Your task to perform on an android device: turn off data saver in the chrome app Image 0: 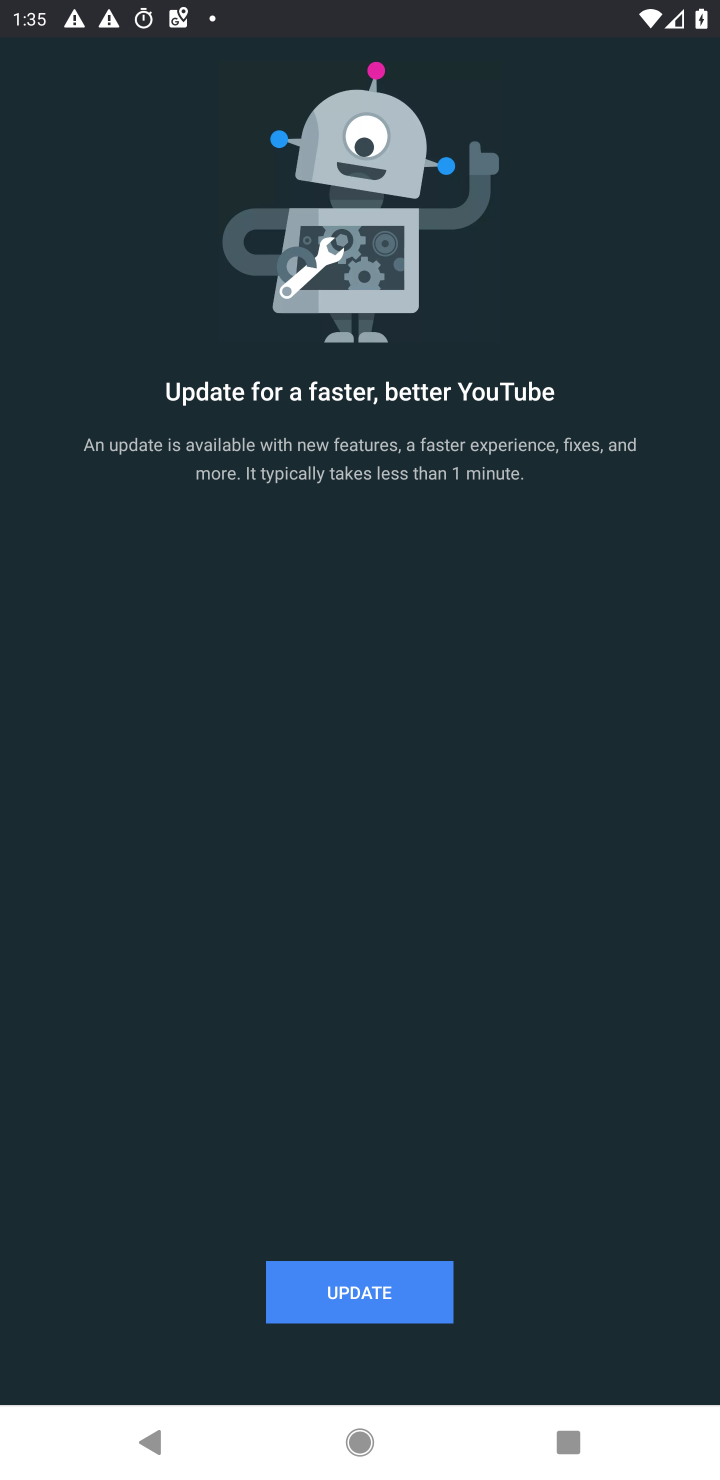
Step 0: press home button
Your task to perform on an android device: turn off data saver in the chrome app Image 1: 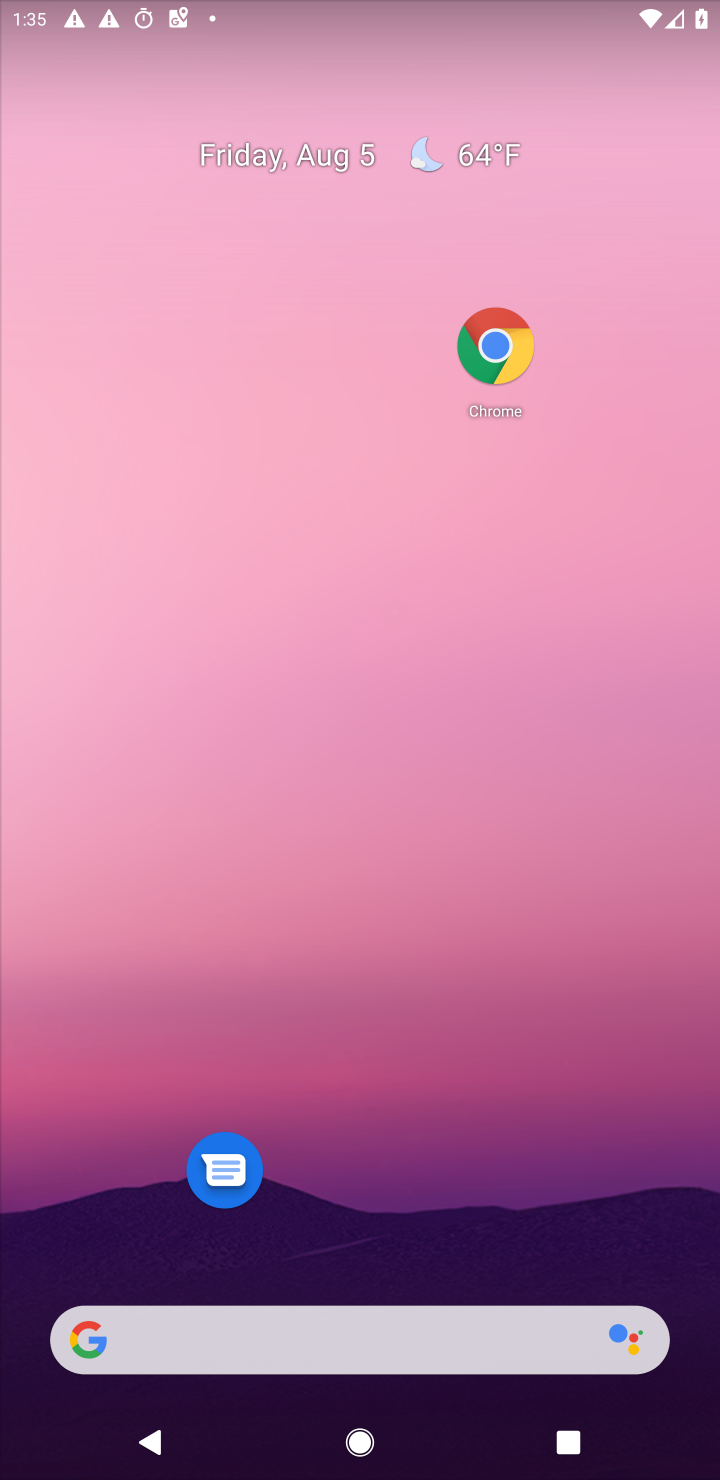
Step 1: drag from (320, 1149) to (346, 162)
Your task to perform on an android device: turn off data saver in the chrome app Image 2: 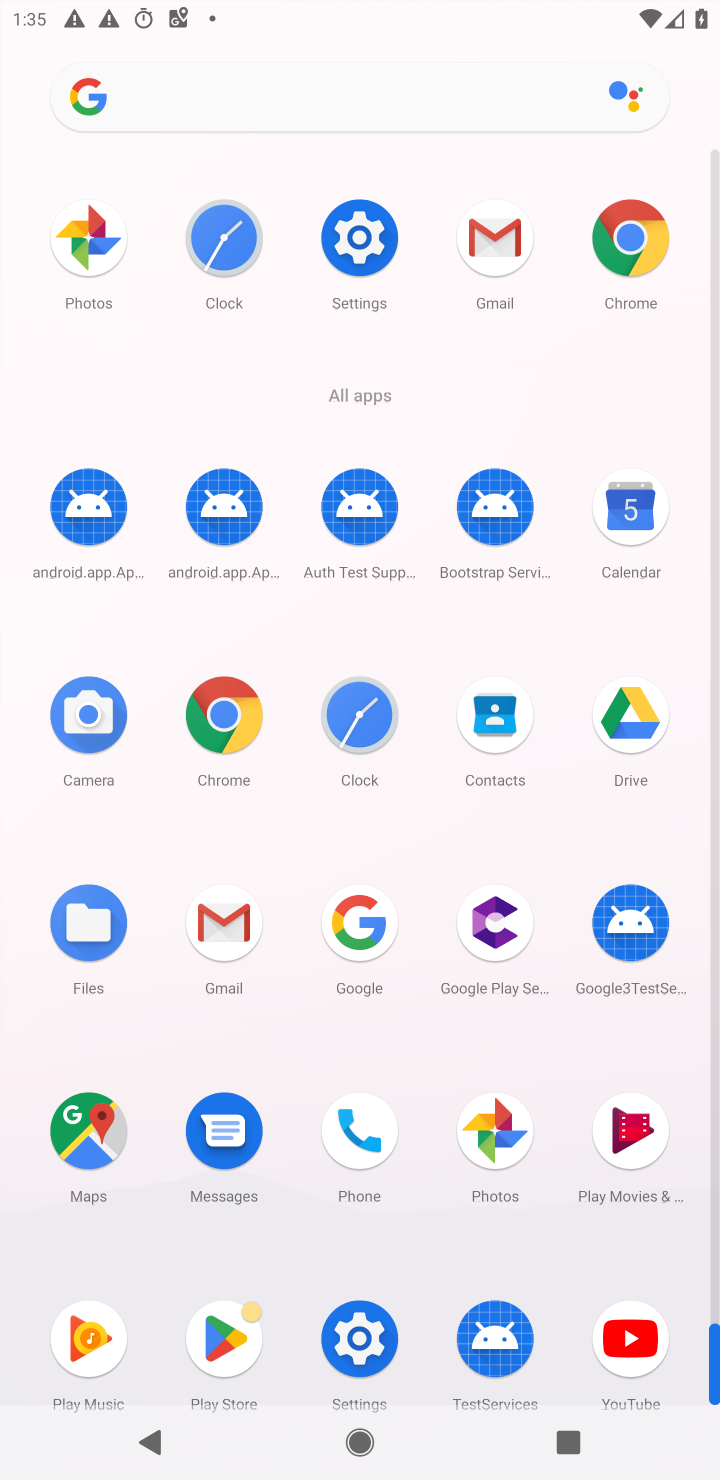
Step 2: click (245, 737)
Your task to perform on an android device: turn off data saver in the chrome app Image 3: 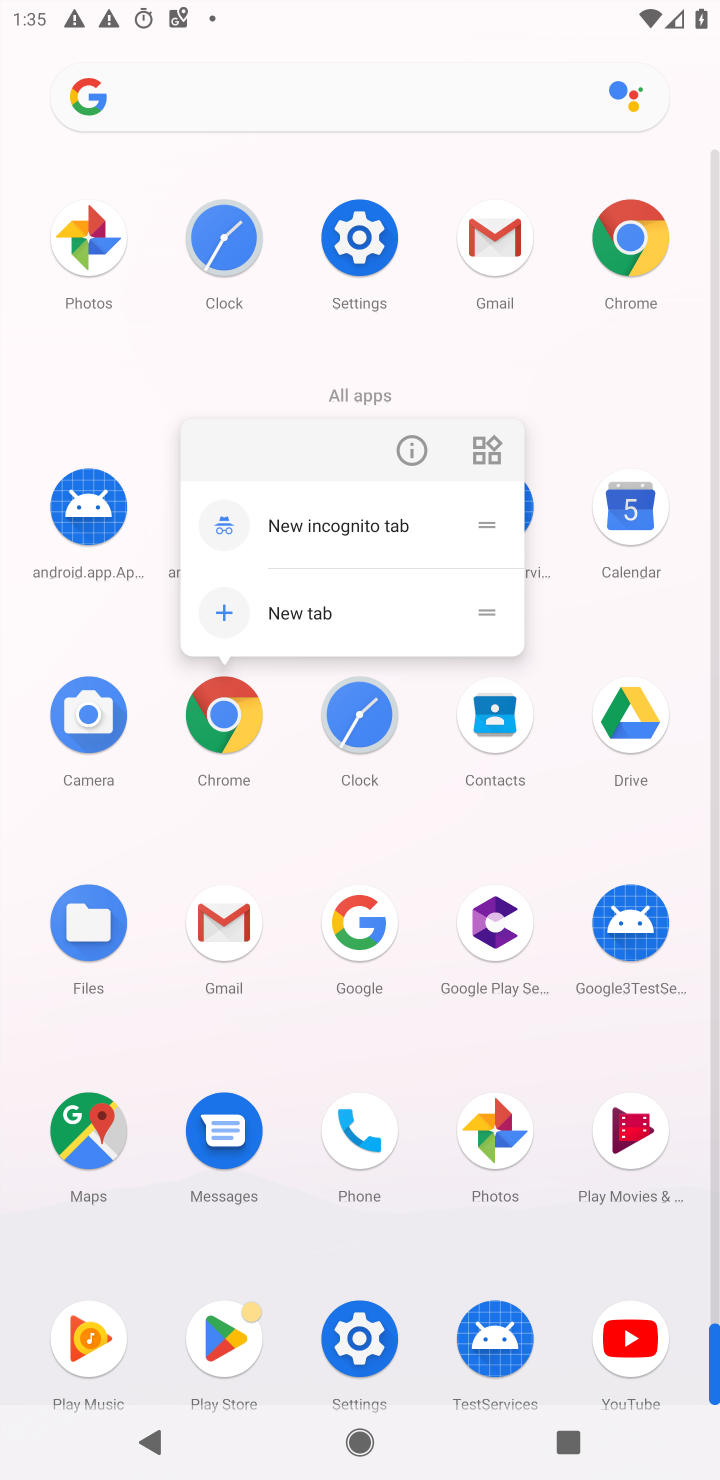
Step 3: click (244, 736)
Your task to perform on an android device: turn off data saver in the chrome app Image 4: 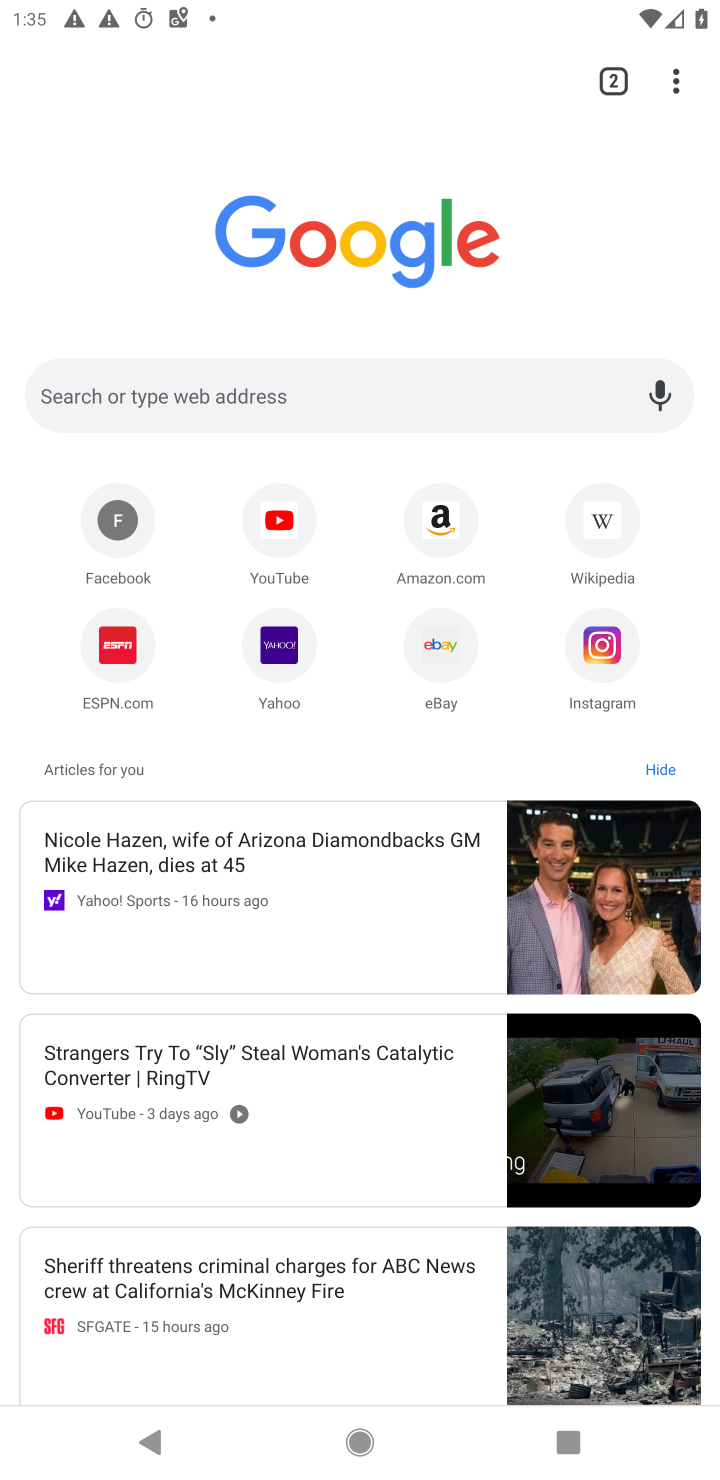
Step 4: click (674, 79)
Your task to perform on an android device: turn off data saver in the chrome app Image 5: 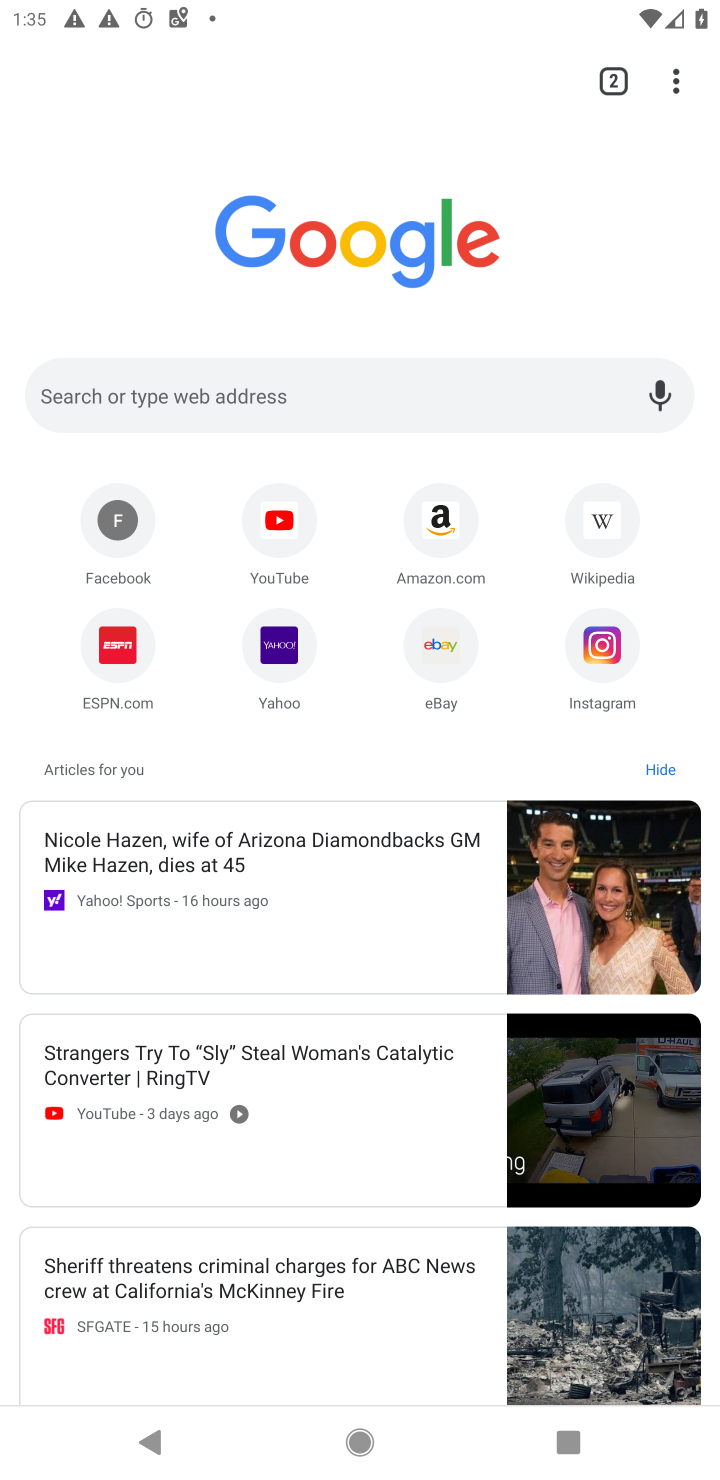
Step 5: click (679, 86)
Your task to perform on an android device: turn off data saver in the chrome app Image 6: 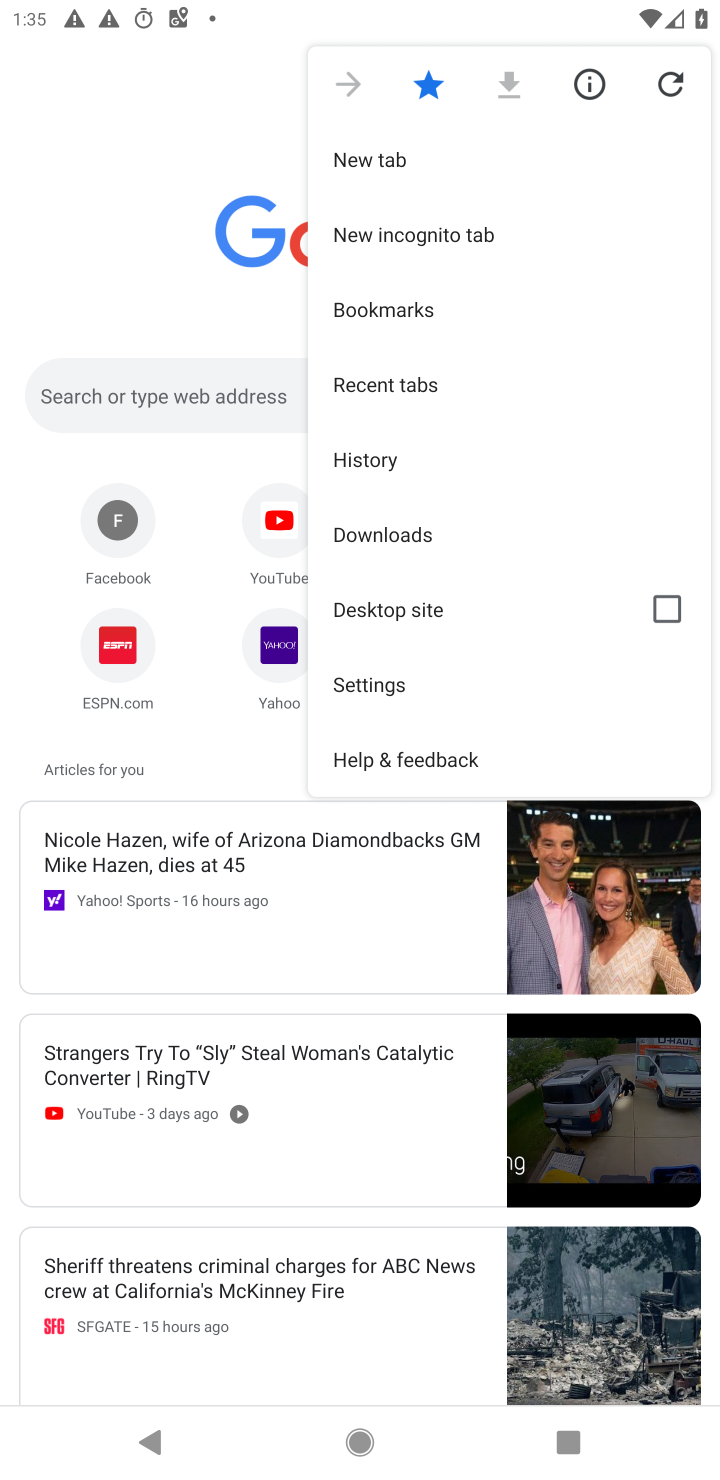
Step 6: click (415, 693)
Your task to perform on an android device: turn off data saver in the chrome app Image 7: 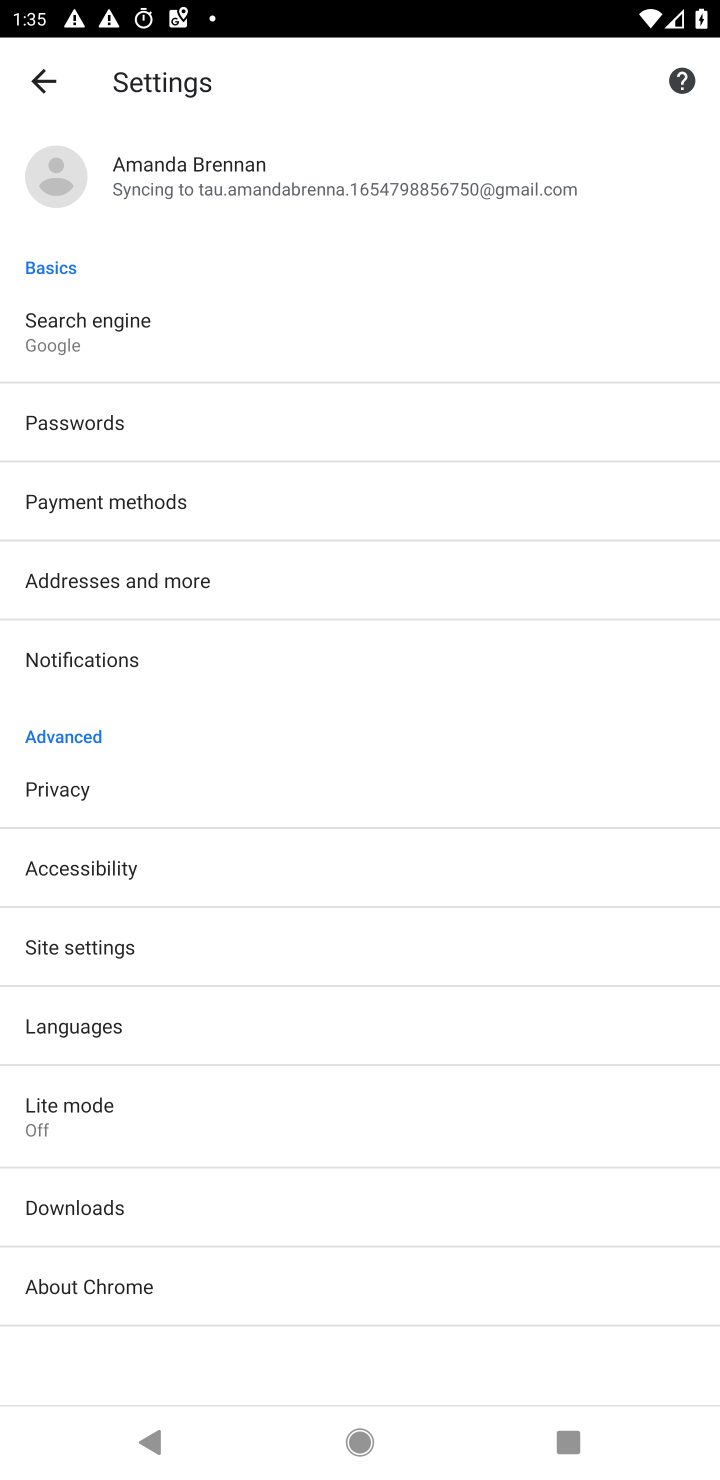
Step 7: task complete